Your task to perform on an android device: turn on wifi Image 0: 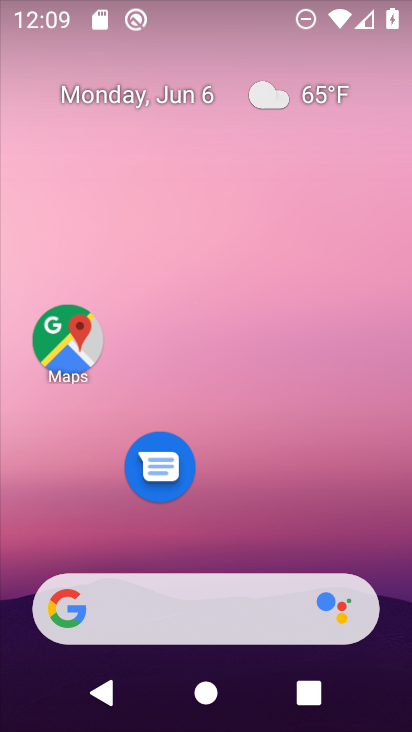
Step 0: drag from (344, 518) to (372, 44)
Your task to perform on an android device: turn on wifi Image 1: 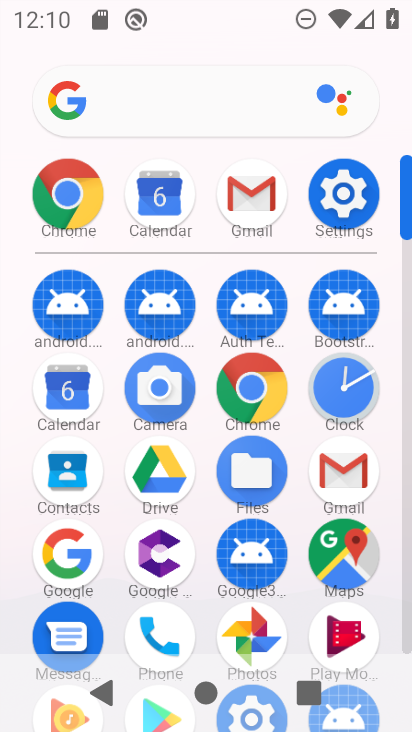
Step 1: task complete